Your task to perform on an android device: read, delete, or share a saved page in the chrome app Image 0: 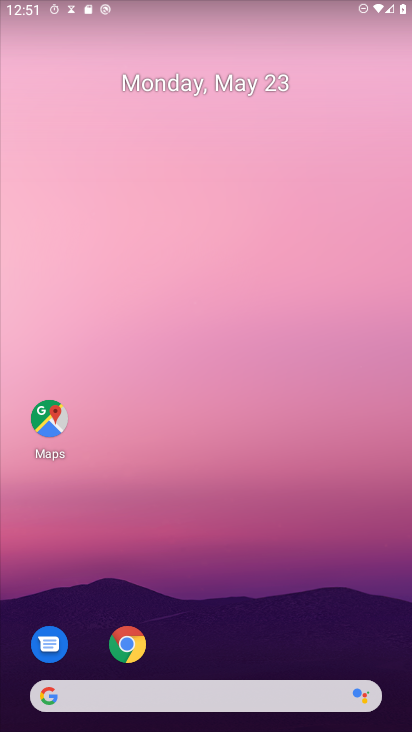
Step 0: click (126, 647)
Your task to perform on an android device: read, delete, or share a saved page in the chrome app Image 1: 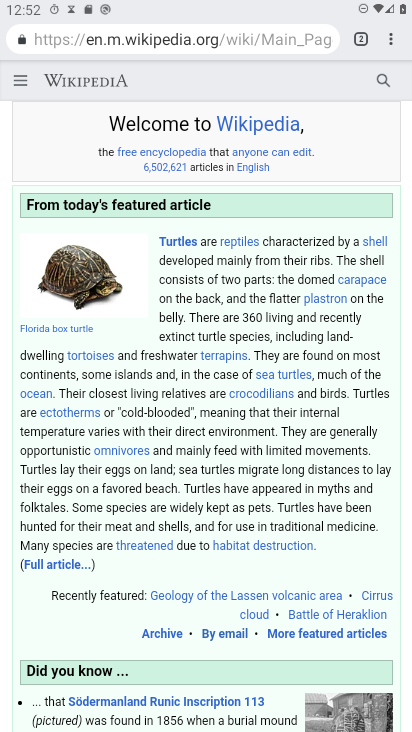
Step 1: click (394, 38)
Your task to perform on an android device: read, delete, or share a saved page in the chrome app Image 2: 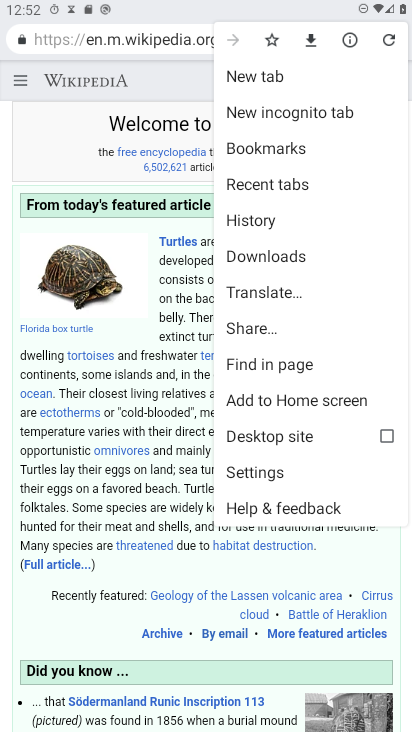
Step 2: click (270, 247)
Your task to perform on an android device: read, delete, or share a saved page in the chrome app Image 3: 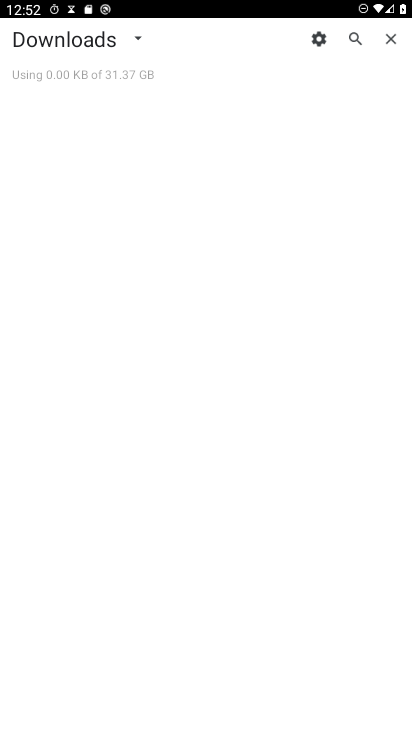
Step 3: click (134, 37)
Your task to perform on an android device: read, delete, or share a saved page in the chrome app Image 4: 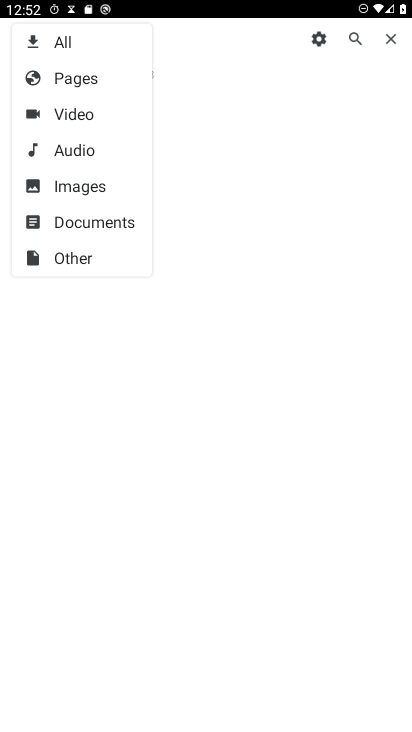
Step 4: click (85, 82)
Your task to perform on an android device: read, delete, or share a saved page in the chrome app Image 5: 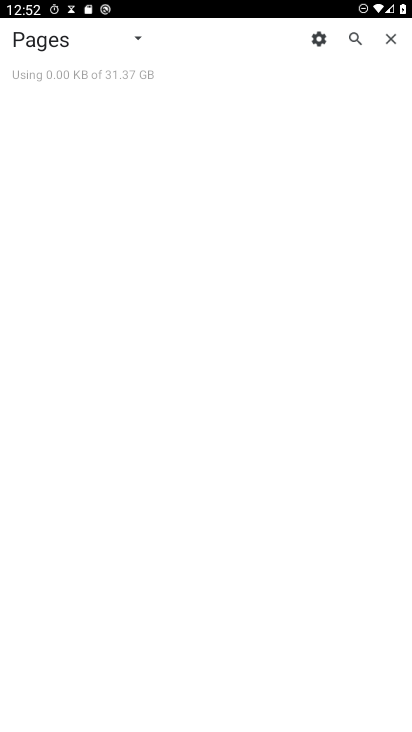
Step 5: task complete